Your task to perform on an android device: See recent photos Image 0: 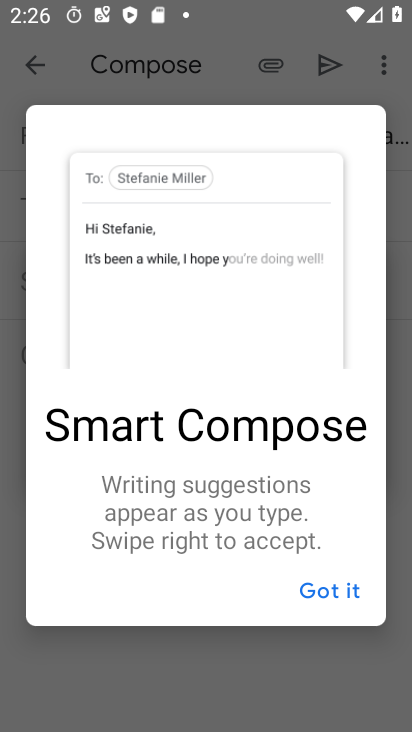
Step 0: press home button
Your task to perform on an android device: See recent photos Image 1: 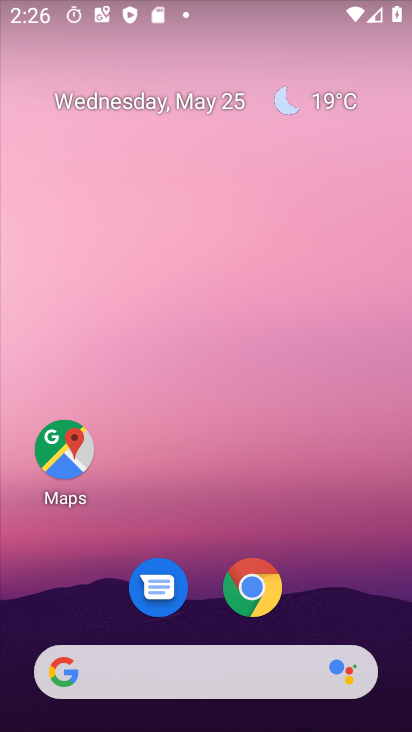
Step 1: drag from (211, 601) to (179, 132)
Your task to perform on an android device: See recent photos Image 2: 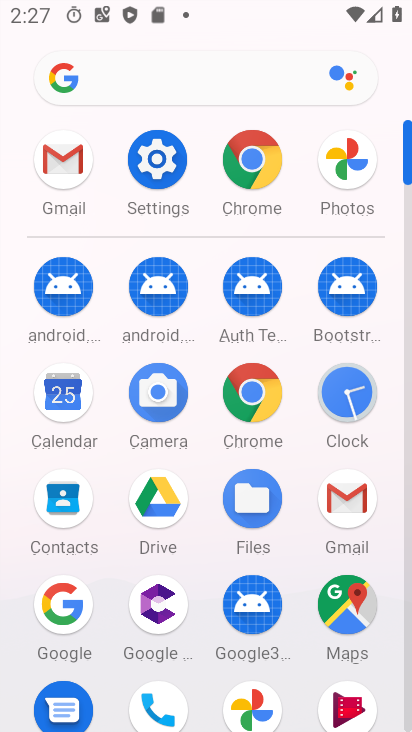
Step 2: click (340, 166)
Your task to perform on an android device: See recent photos Image 3: 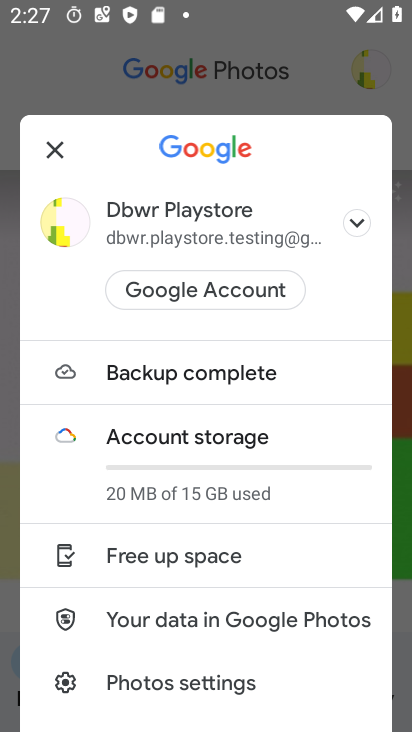
Step 3: task complete